Your task to perform on an android device: find photos in the google photos app Image 0: 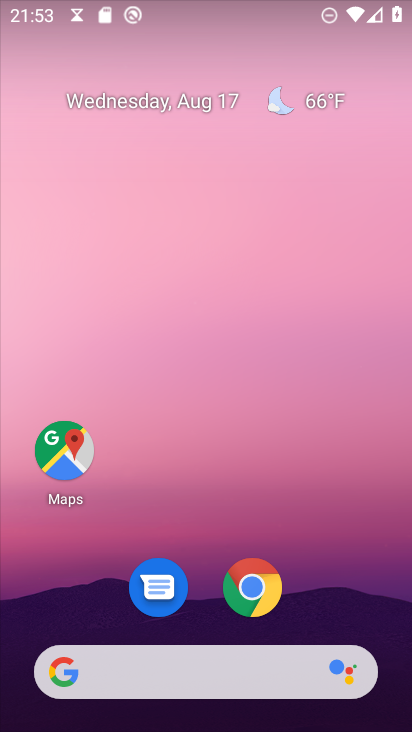
Step 0: drag from (20, 709) to (239, 199)
Your task to perform on an android device: find photos in the google photos app Image 1: 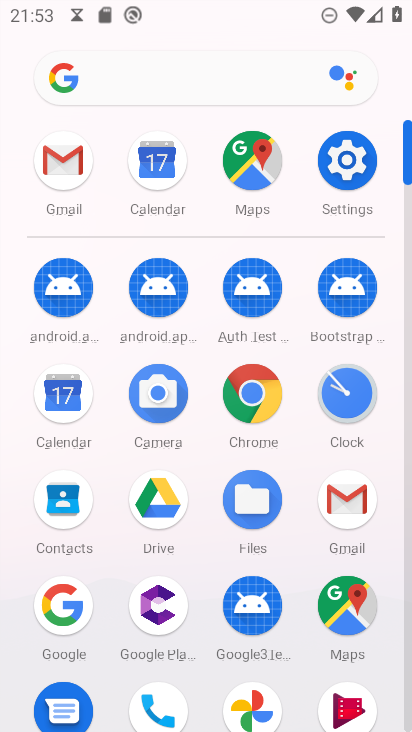
Step 1: click (255, 699)
Your task to perform on an android device: find photos in the google photos app Image 2: 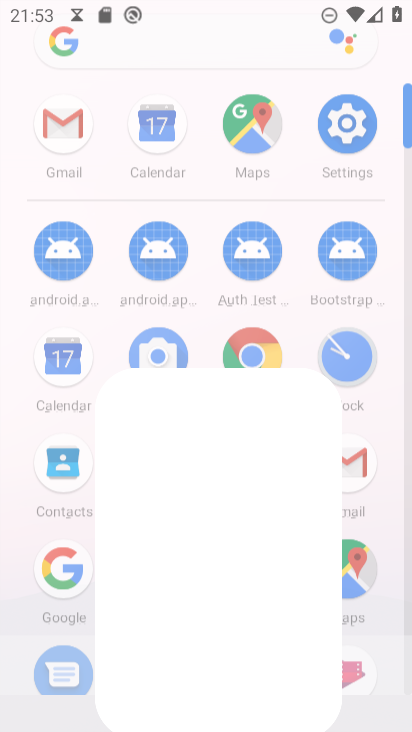
Step 2: click (255, 699)
Your task to perform on an android device: find photos in the google photos app Image 3: 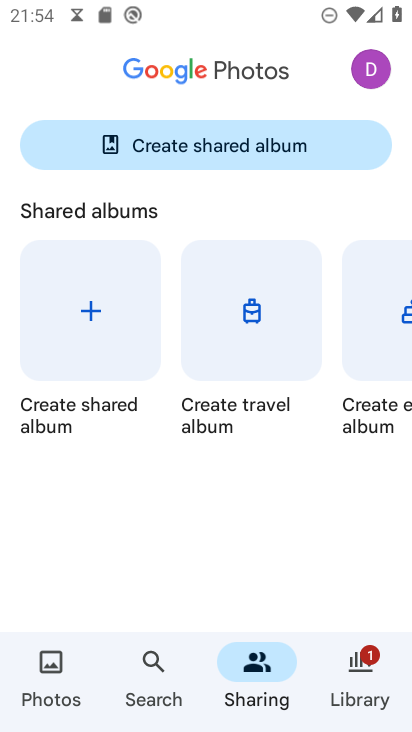
Step 3: click (42, 681)
Your task to perform on an android device: find photos in the google photos app Image 4: 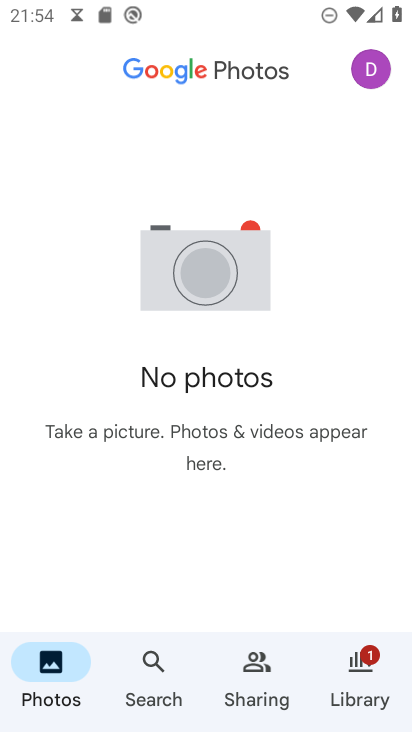
Step 4: task complete